Your task to perform on an android device: What is the recent news? Image 0: 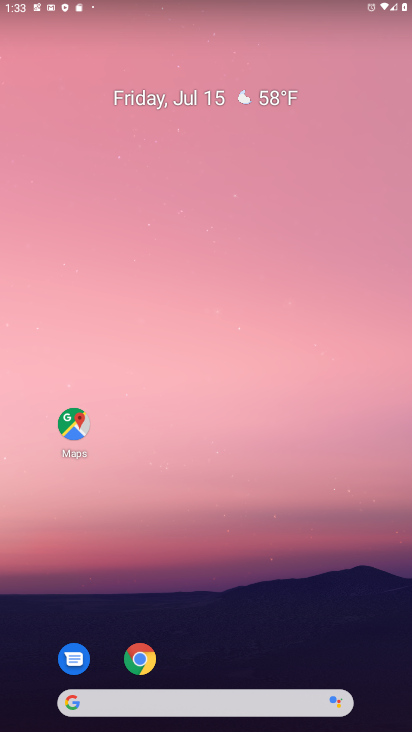
Step 0: drag from (44, 246) to (409, 232)
Your task to perform on an android device: What is the recent news? Image 1: 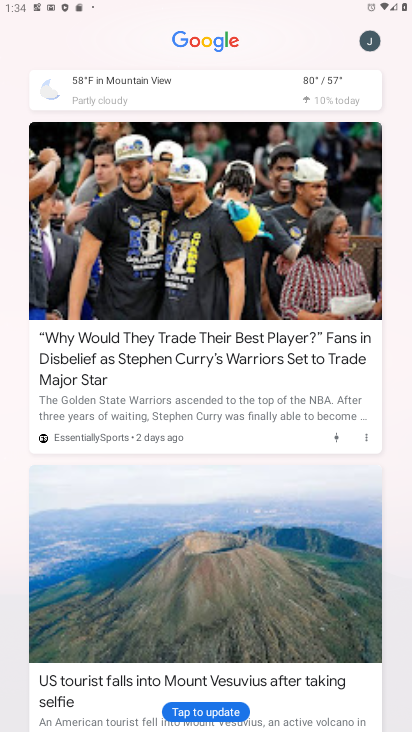
Step 1: task complete